Your task to perform on an android device: check google app version Image 0: 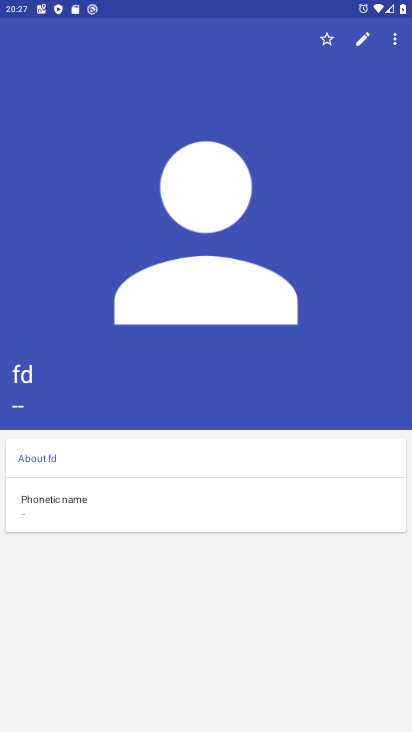
Step 0: click (270, 647)
Your task to perform on an android device: check google app version Image 1: 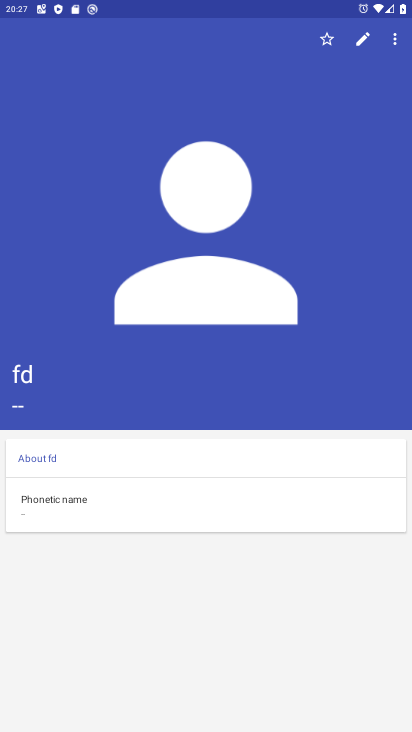
Step 1: press home button
Your task to perform on an android device: check google app version Image 2: 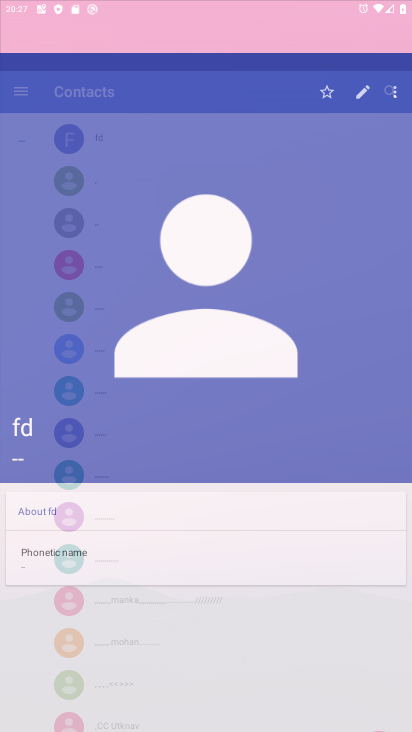
Step 2: drag from (119, 643) to (212, 195)
Your task to perform on an android device: check google app version Image 3: 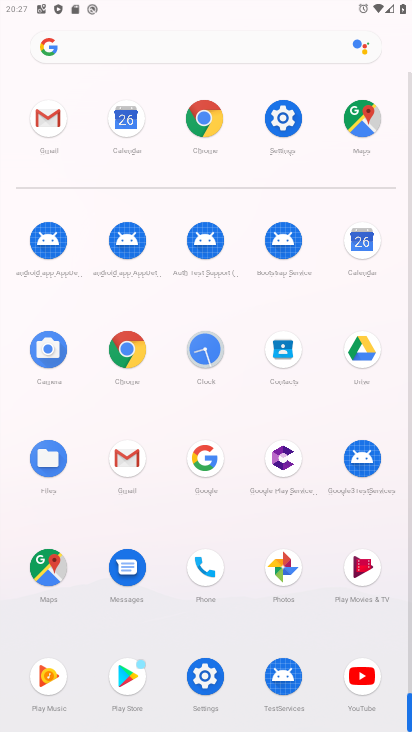
Step 3: click (202, 455)
Your task to perform on an android device: check google app version Image 4: 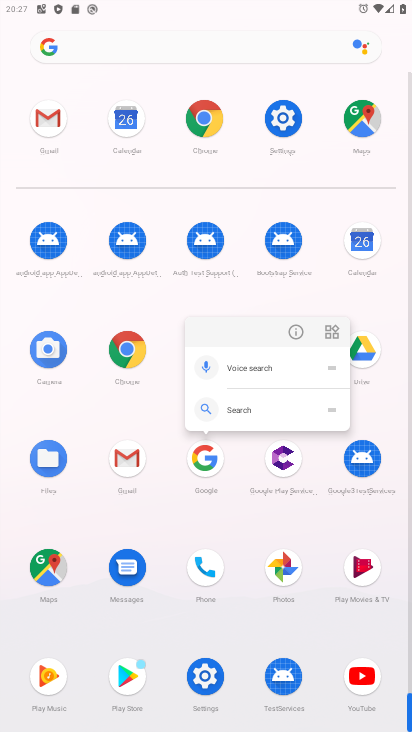
Step 4: click (290, 332)
Your task to perform on an android device: check google app version Image 5: 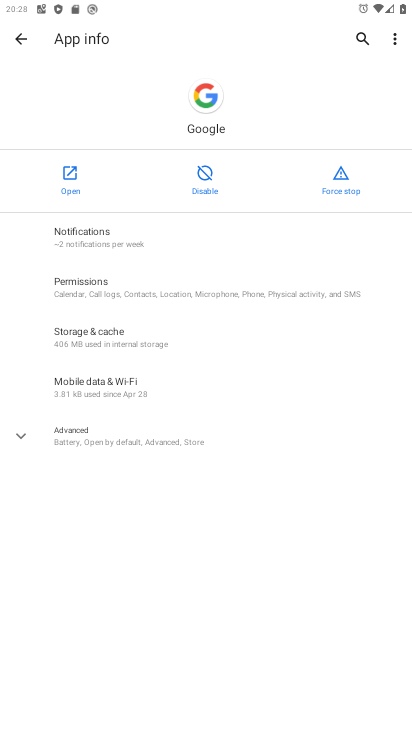
Step 5: click (76, 156)
Your task to perform on an android device: check google app version Image 6: 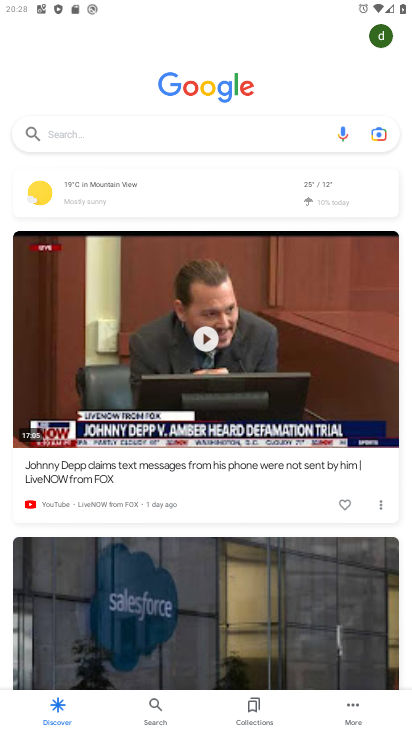
Step 6: click (348, 706)
Your task to perform on an android device: check google app version Image 7: 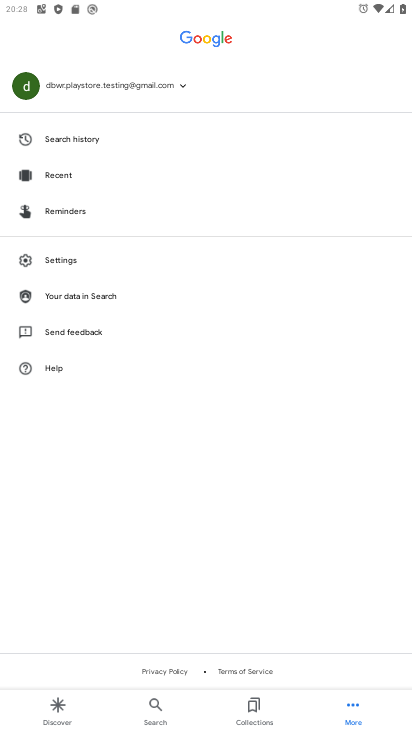
Step 7: click (59, 264)
Your task to perform on an android device: check google app version Image 8: 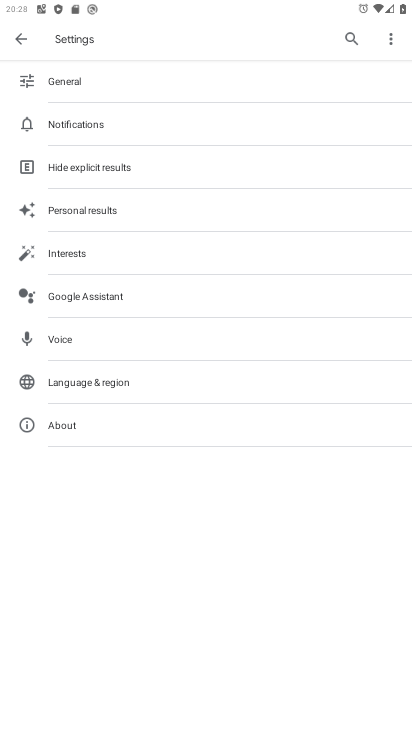
Step 8: click (113, 417)
Your task to perform on an android device: check google app version Image 9: 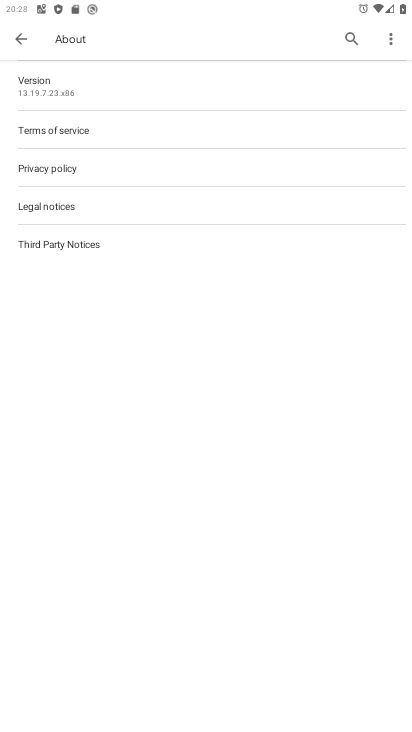
Step 9: click (116, 73)
Your task to perform on an android device: check google app version Image 10: 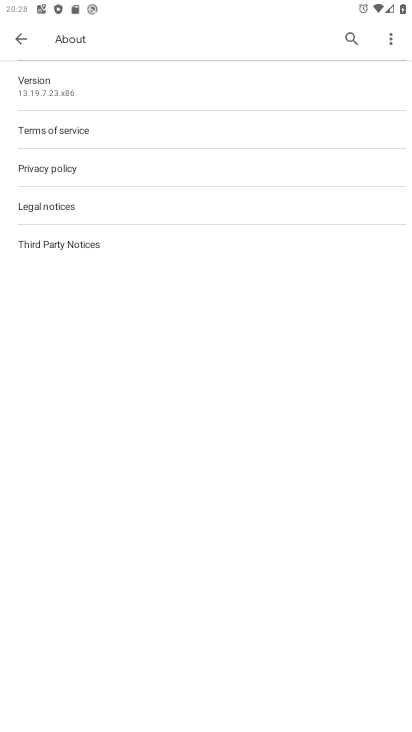
Step 10: task complete